Your task to perform on an android device: Turn off the flashlight Image 0: 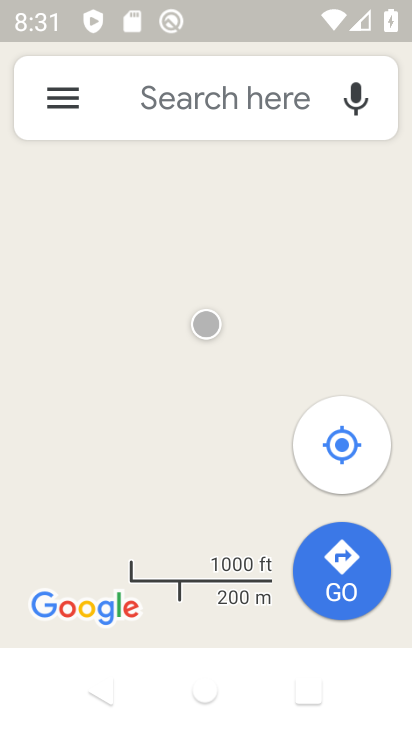
Step 0: press home button
Your task to perform on an android device: Turn off the flashlight Image 1: 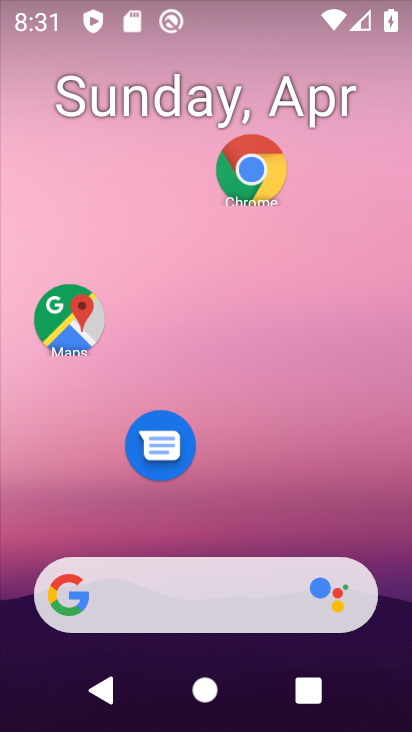
Step 1: drag from (247, 511) to (154, 5)
Your task to perform on an android device: Turn off the flashlight Image 2: 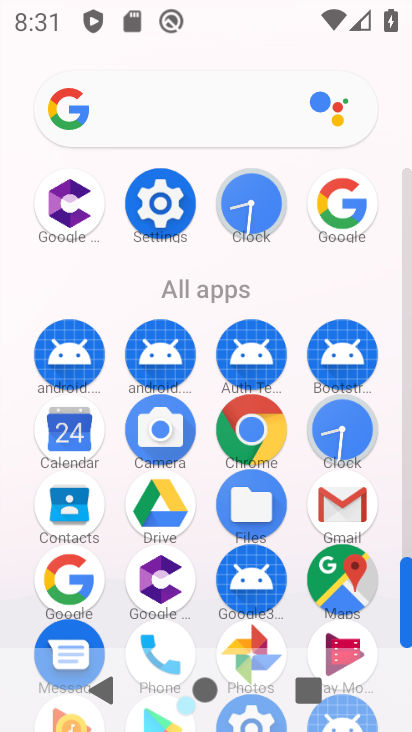
Step 2: click (166, 201)
Your task to perform on an android device: Turn off the flashlight Image 3: 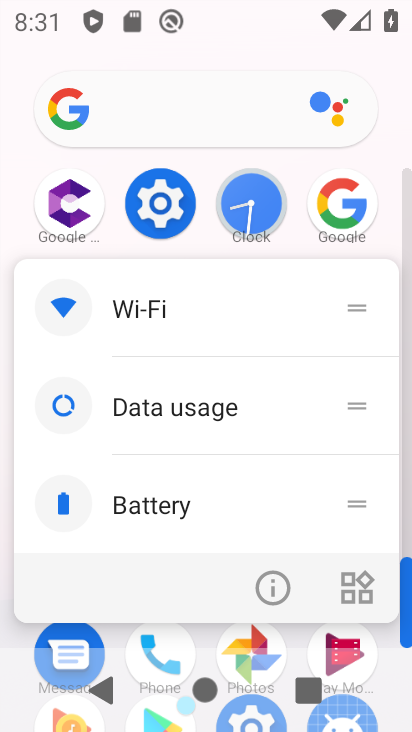
Step 3: click (151, 194)
Your task to perform on an android device: Turn off the flashlight Image 4: 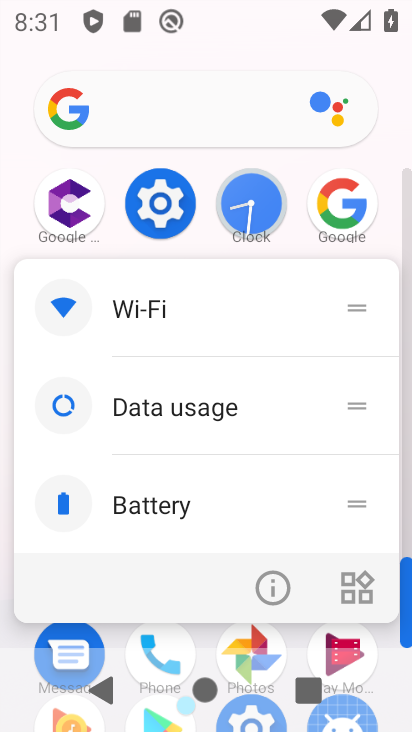
Step 4: click (159, 207)
Your task to perform on an android device: Turn off the flashlight Image 5: 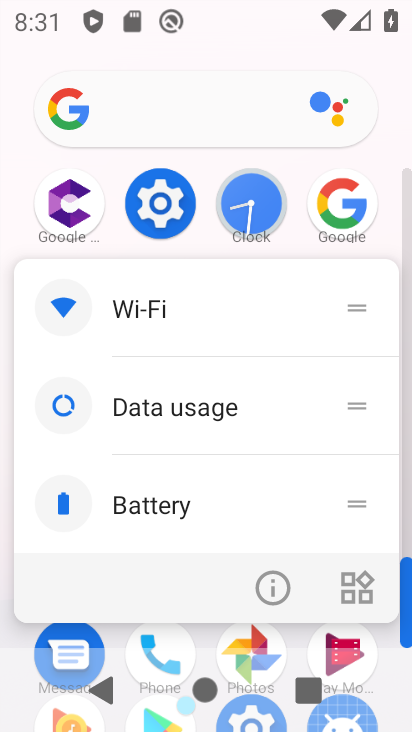
Step 5: click (164, 203)
Your task to perform on an android device: Turn off the flashlight Image 6: 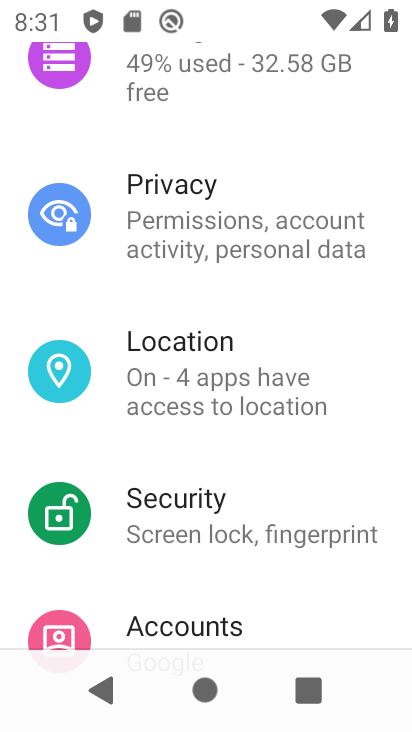
Step 6: drag from (218, 95) to (250, 620)
Your task to perform on an android device: Turn off the flashlight Image 7: 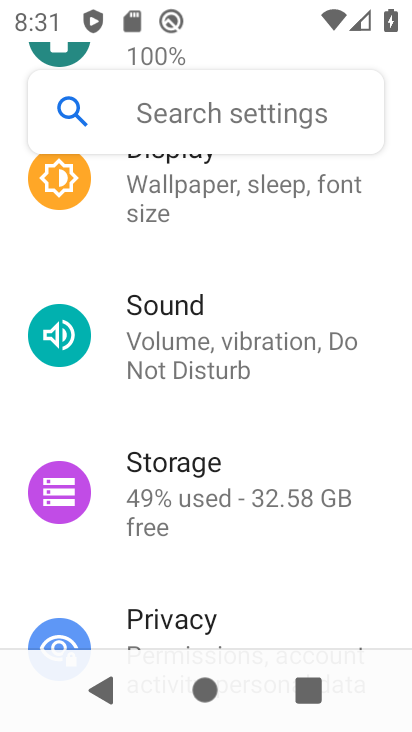
Step 7: click (189, 110)
Your task to perform on an android device: Turn off the flashlight Image 8: 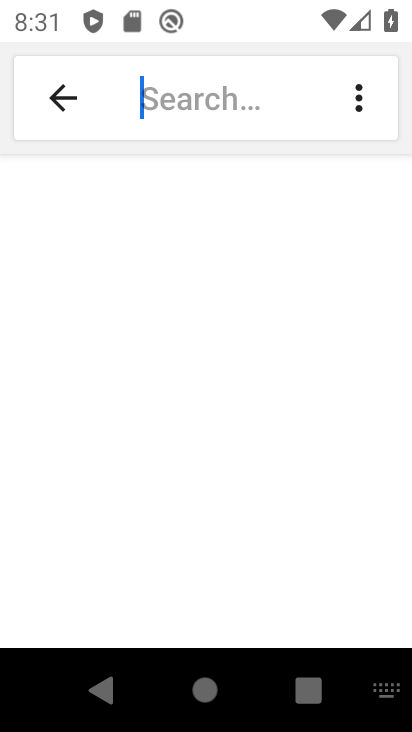
Step 8: type "flash"
Your task to perform on an android device: Turn off the flashlight Image 9: 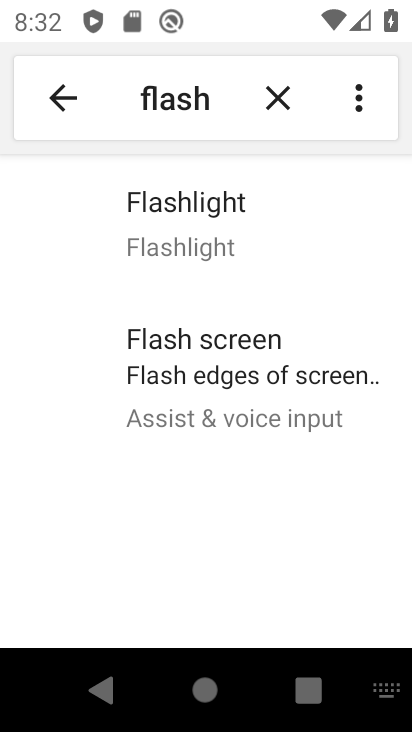
Step 9: task complete